Your task to perform on an android device: What's the weather going to be this weekend? Image 0: 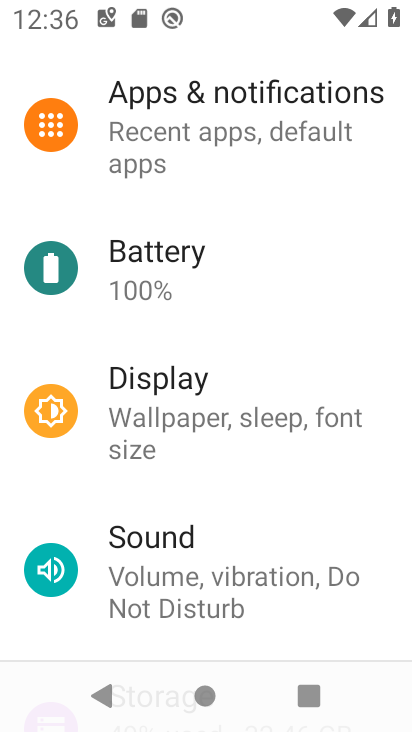
Step 0: press home button
Your task to perform on an android device: What's the weather going to be this weekend? Image 1: 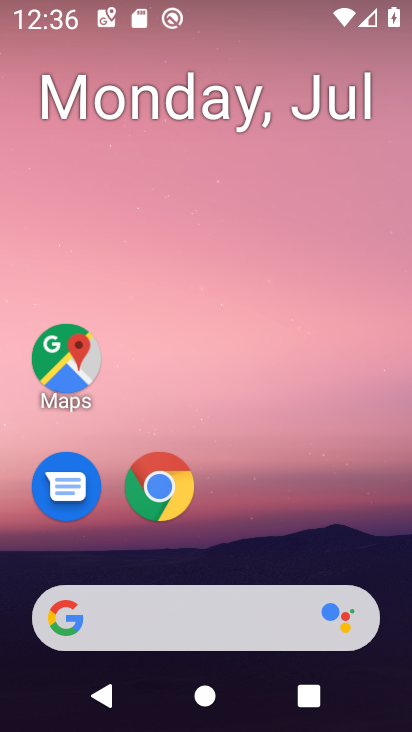
Step 1: click (232, 605)
Your task to perform on an android device: What's the weather going to be this weekend? Image 2: 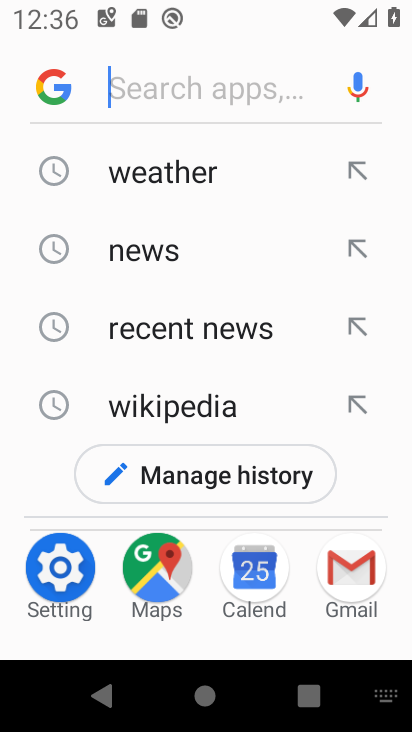
Step 2: click (210, 176)
Your task to perform on an android device: What's the weather going to be this weekend? Image 3: 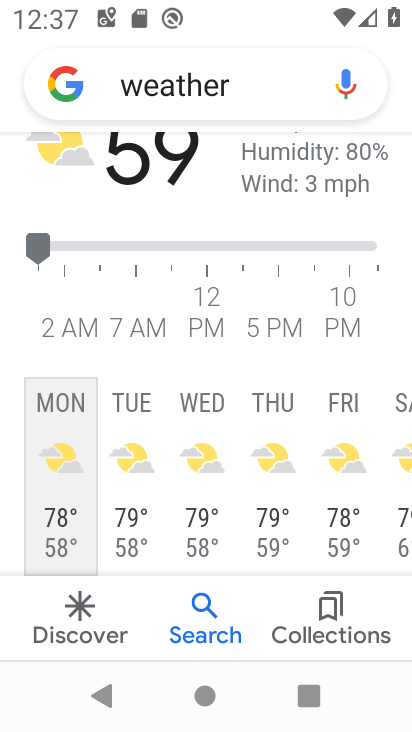
Step 3: click (397, 404)
Your task to perform on an android device: What's the weather going to be this weekend? Image 4: 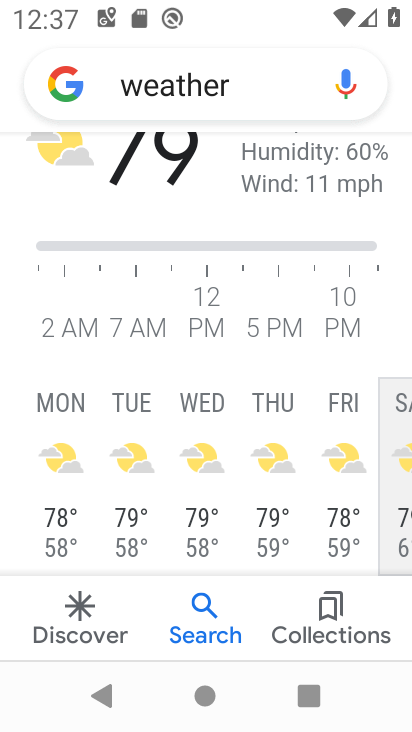
Step 4: task complete